Your task to perform on an android device: Open the phone app and click the voicemail tab. Image 0: 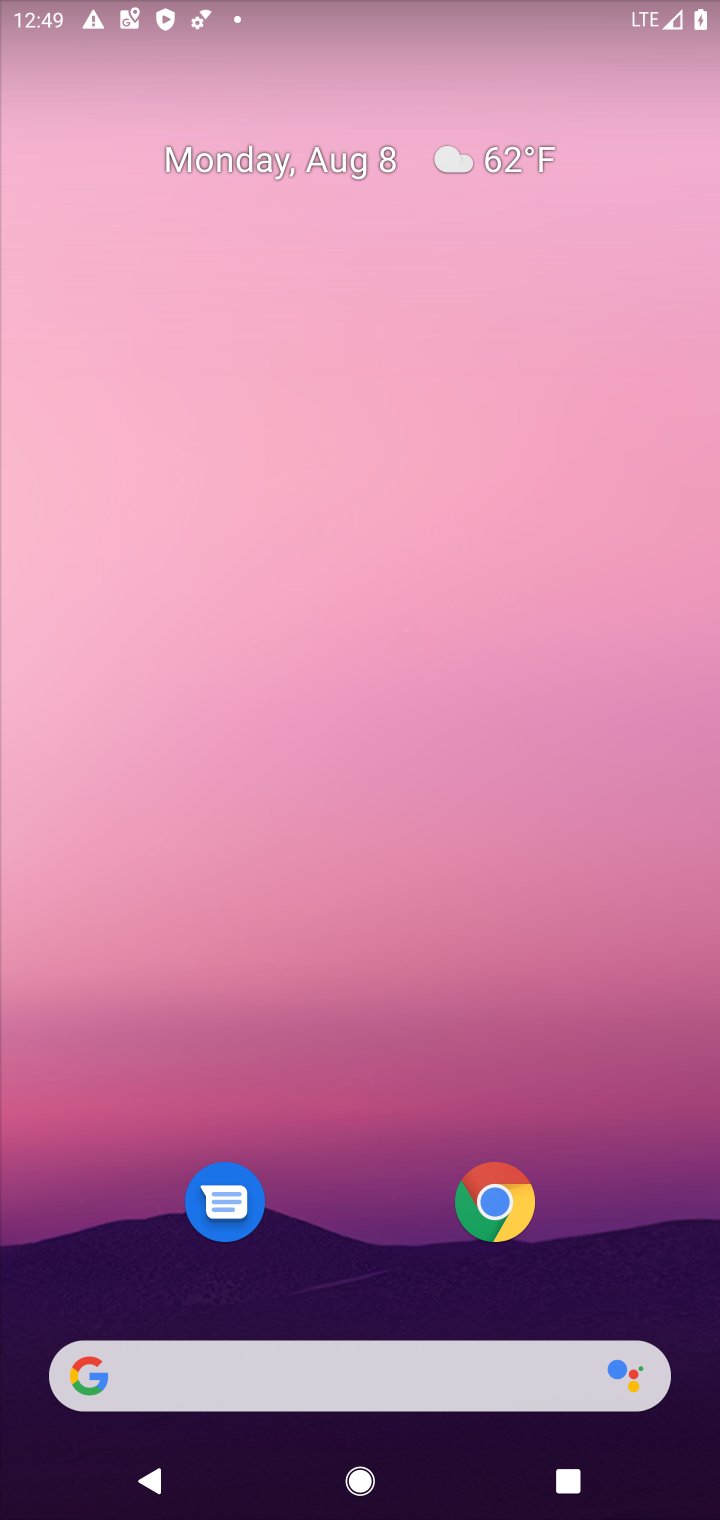
Step 0: drag from (316, 1125) to (319, 21)
Your task to perform on an android device: Open the phone app and click the voicemail tab. Image 1: 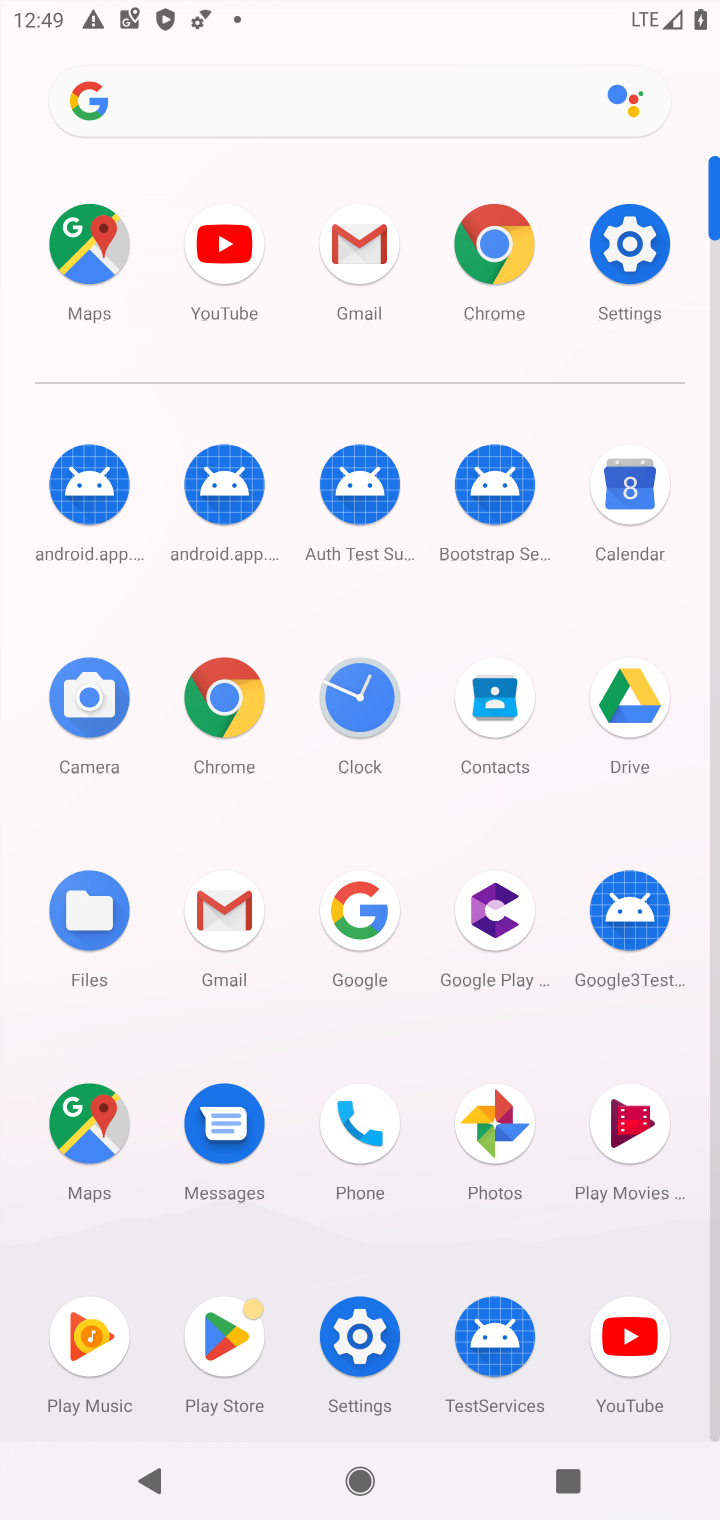
Step 1: click (341, 1166)
Your task to perform on an android device: Open the phone app and click the voicemail tab. Image 2: 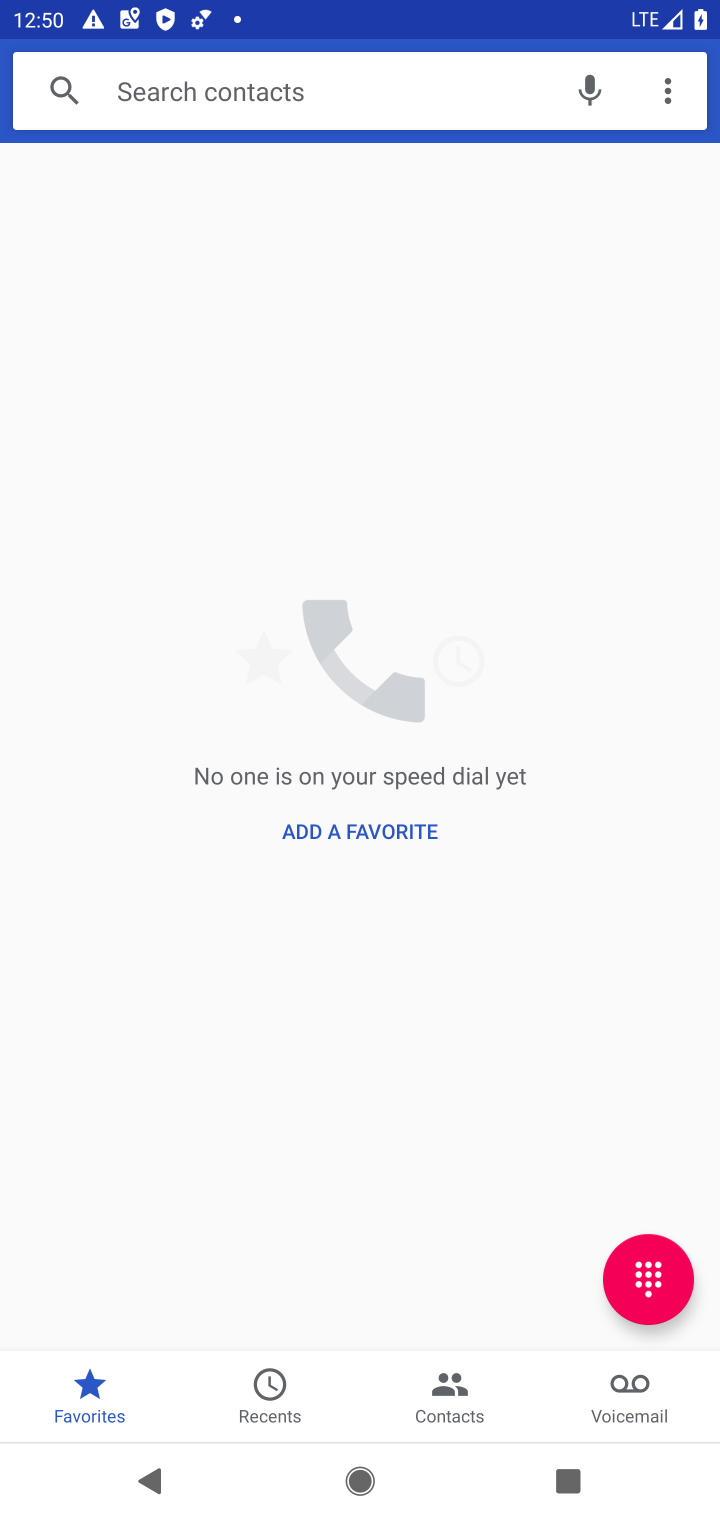
Step 2: click (633, 1380)
Your task to perform on an android device: Open the phone app and click the voicemail tab. Image 3: 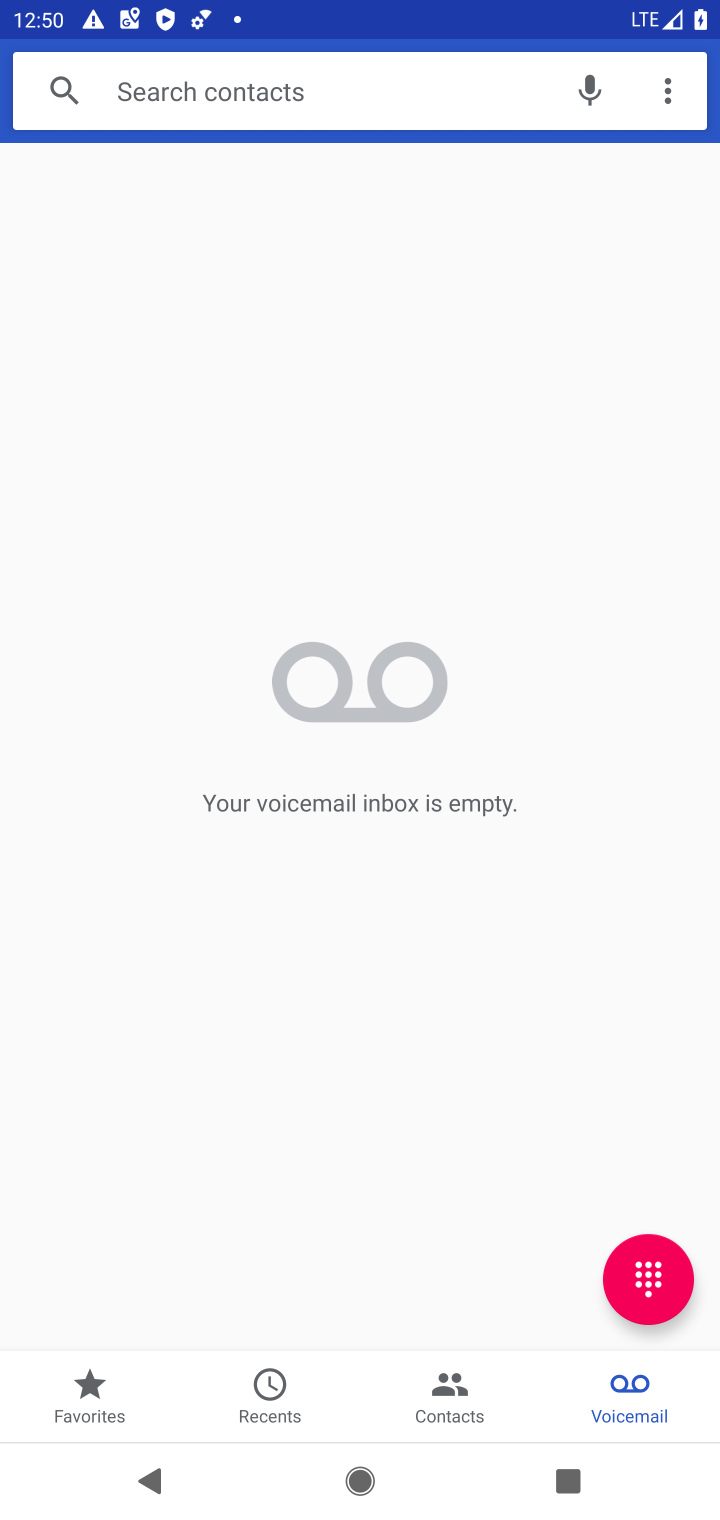
Step 3: task complete